Your task to perform on an android device: turn on translation in the chrome app Image 0: 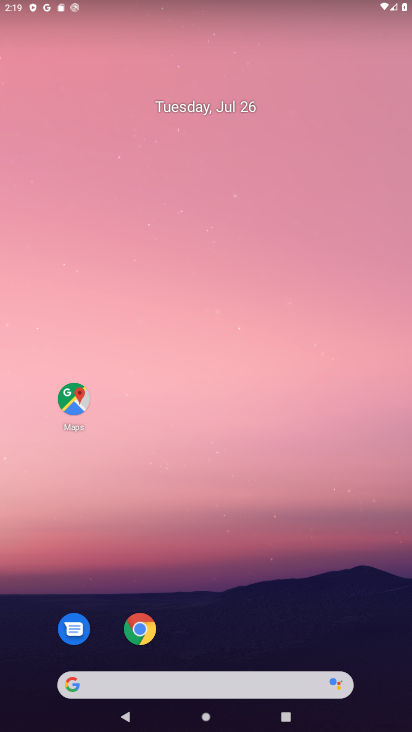
Step 0: click (147, 627)
Your task to perform on an android device: turn on translation in the chrome app Image 1: 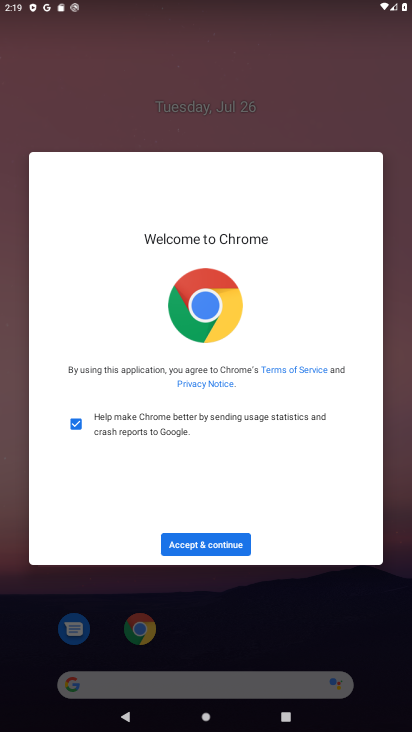
Step 1: click (221, 544)
Your task to perform on an android device: turn on translation in the chrome app Image 2: 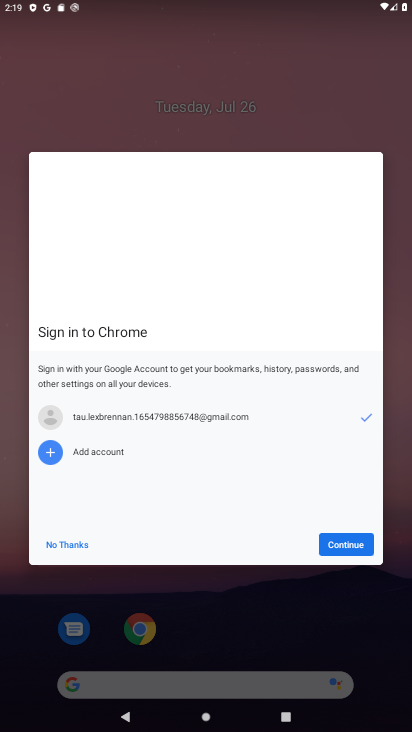
Step 2: click (332, 553)
Your task to perform on an android device: turn on translation in the chrome app Image 3: 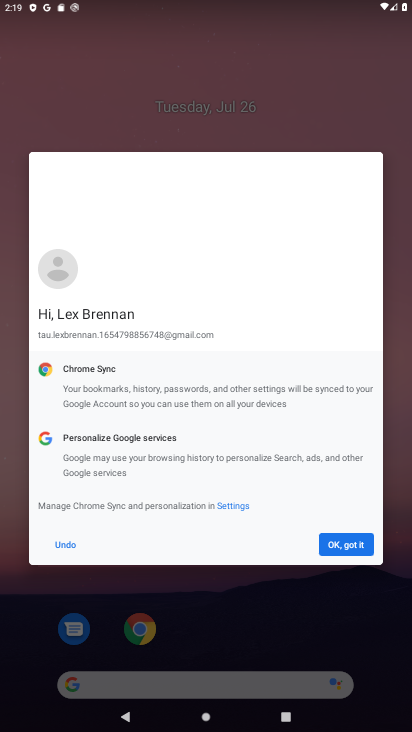
Step 3: click (332, 553)
Your task to perform on an android device: turn on translation in the chrome app Image 4: 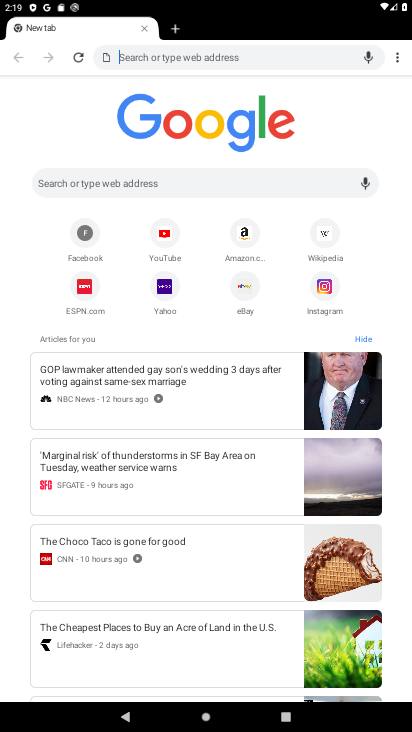
Step 4: click (398, 59)
Your task to perform on an android device: turn on translation in the chrome app Image 5: 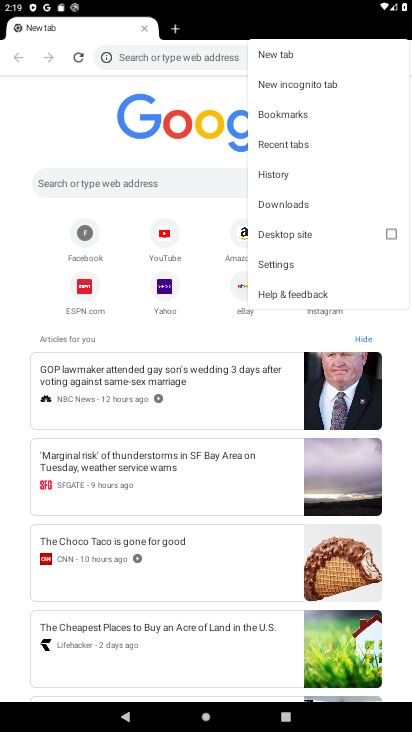
Step 5: click (368, 266)
Your task to perform on an android device: turn on translation in the chrome app Image 6: 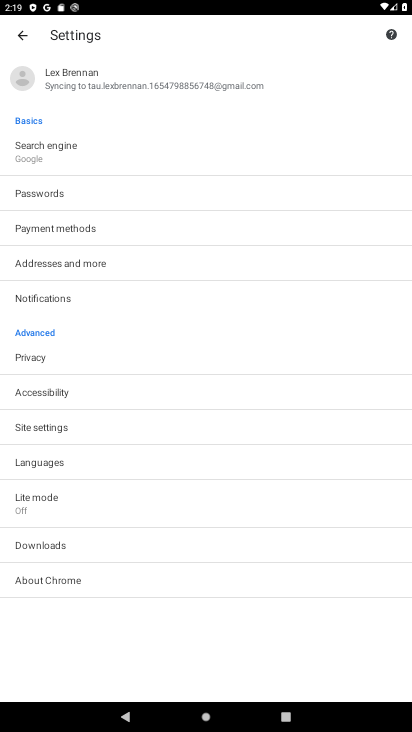
Step 6: click (75, 454)
Your task to perform on an android device: turn on translation in the chrome app Image 7: 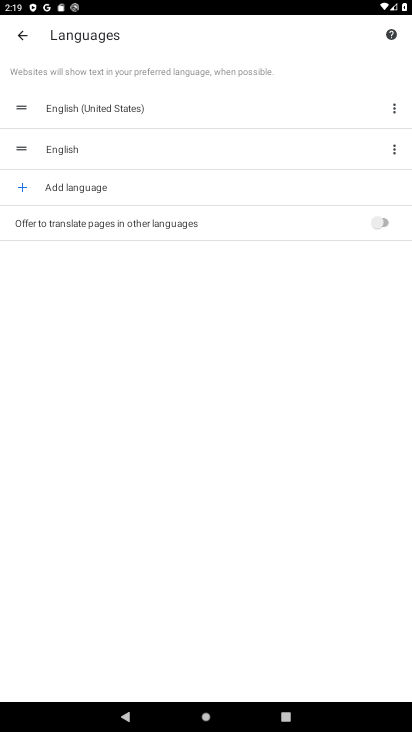
Step 7: click (376, 222)
Your task to perform on an android device: turn on translation in the chrome app Image 8: 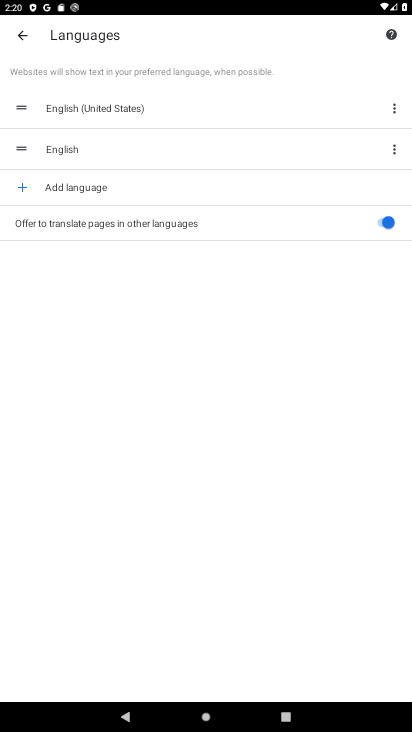
Step 8: task complete